Your task to perform on an android device: manage bookmarks in the chrome app Image 0: 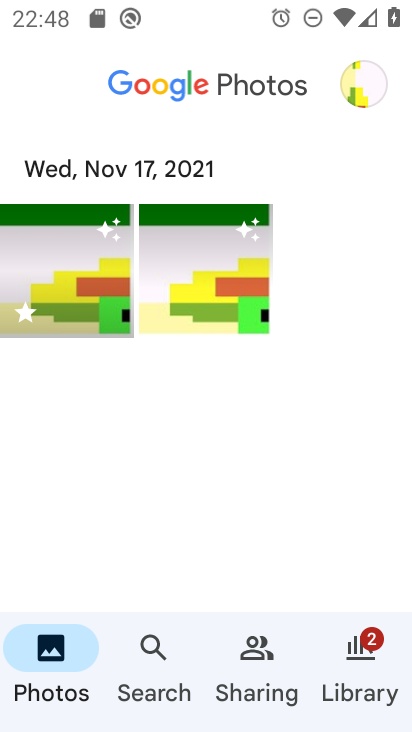
Step 0: press home button
Your task to perform on an android device: manage bookmarks in the chrome app Image 1: 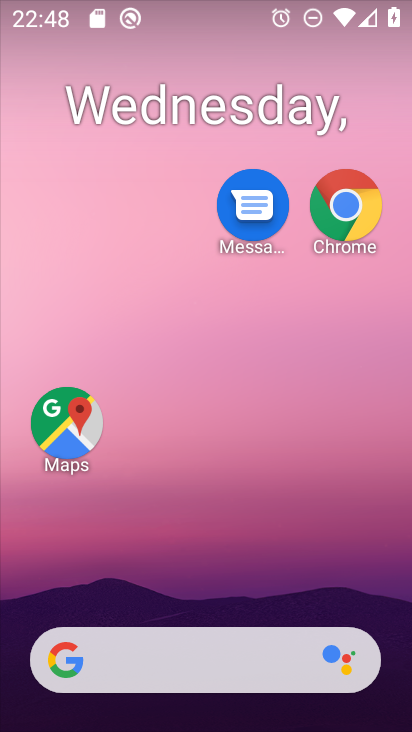
Step 1: drag from (171, 603) to (174, 152)
Your task to perform on an android device: manage bookmarks in the chrome app Image 2: 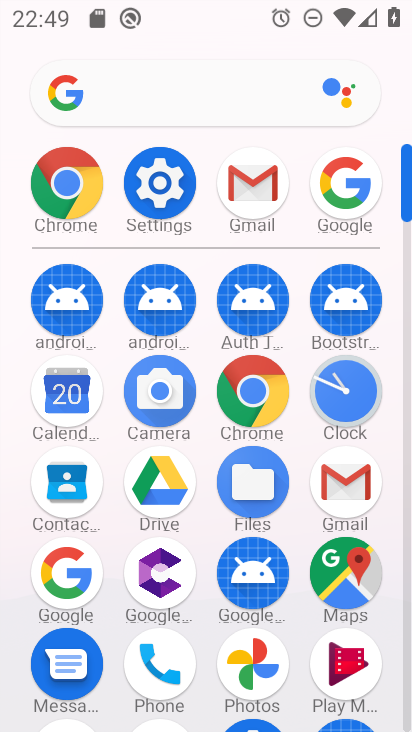
Step 2: click (255, 382)
Your task to perform on an android device: manage bookmarks in the chrome app Image 3: 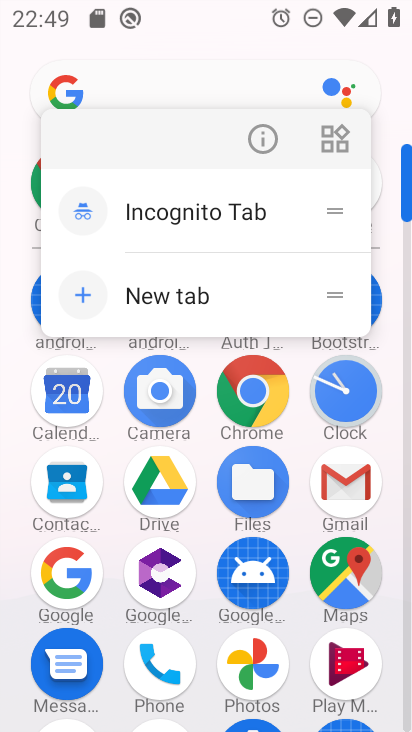
Step 3: click (254, 156)
Your task to perform on an android device: manage bookmarks in the chrome app Image 4: 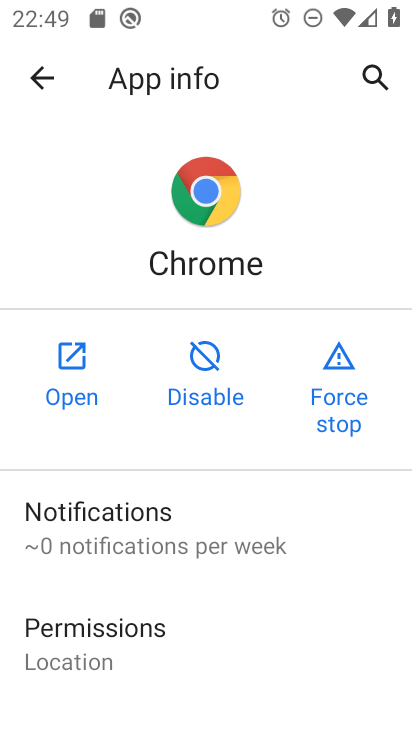
Step 4: click (83, 350)
Your task to perform on an android device: manage bookmarks in the chrome app Image 5: 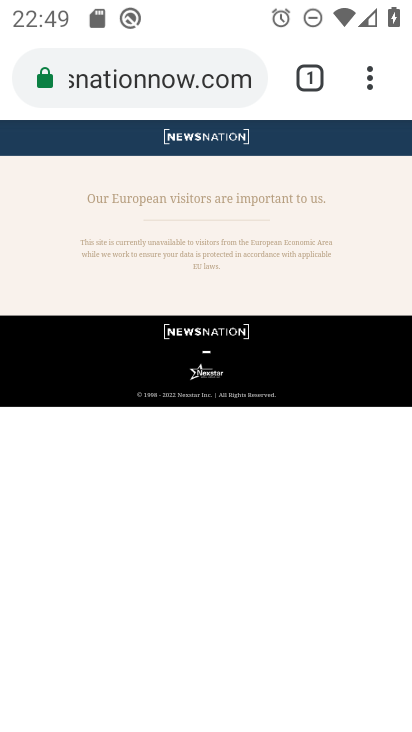
Step 5: task complete